Your task to perform on an android device: Open display settings Image 0: 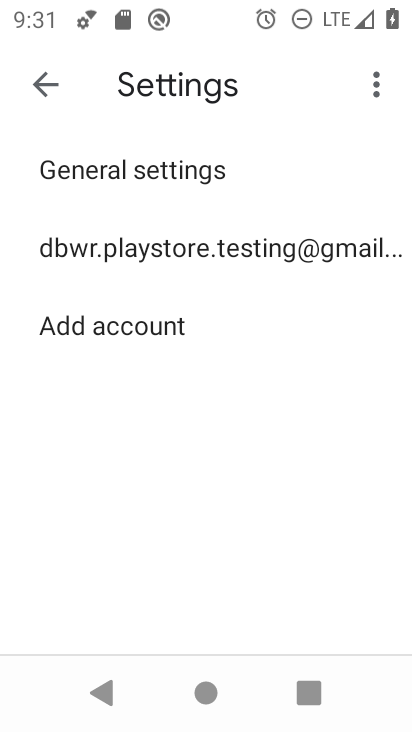
Step 0: press home button
Your task to perform on an android device: Open display settings Image 1: 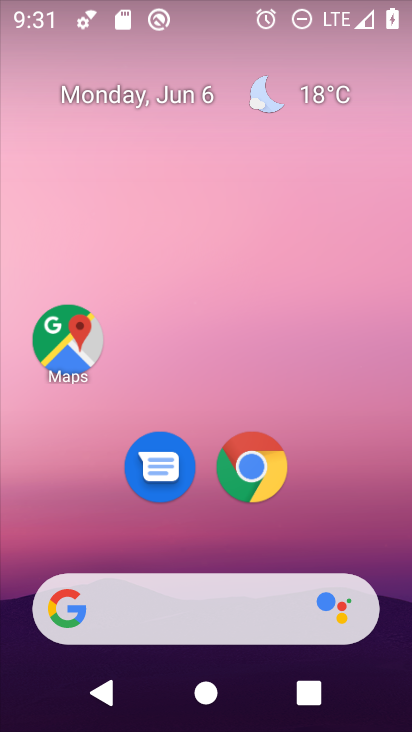
Step 1: drag from (351, 525) to (375, 119)
Your task to perform on an android device: Open display settings Image 2: 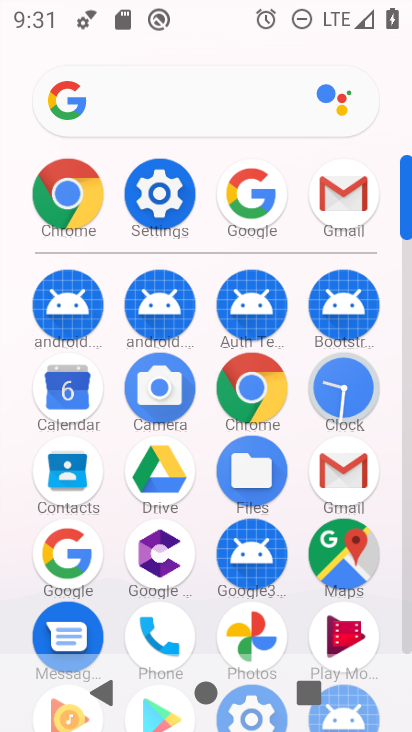
Step 2: click (170, 196)
Your task to perform on an android device: Open display settings Image 3: 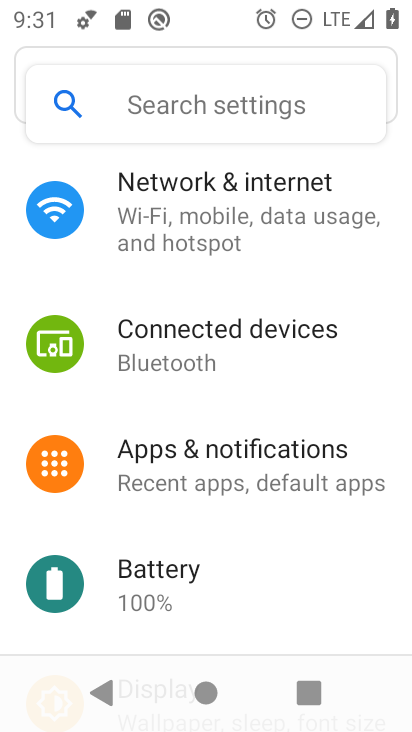
Step 3: drag from (364, 281) to (363, 488)
Your task to perform on an android device: Open display settings Image 4: 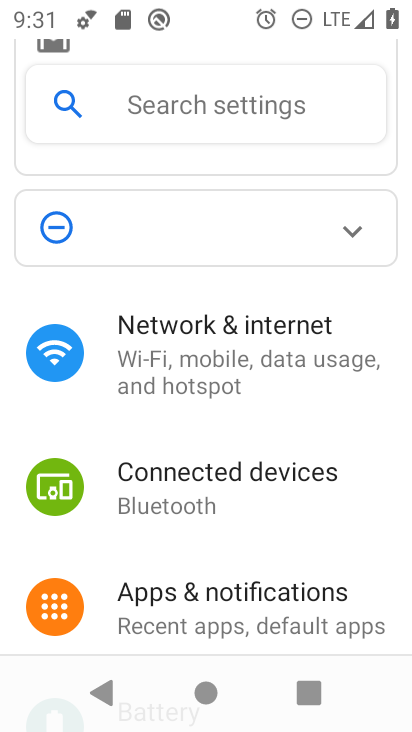
Step 4: drag from (365, 526) to (372, 406)
Your task to perform on an android device: Open display settings Image 5: 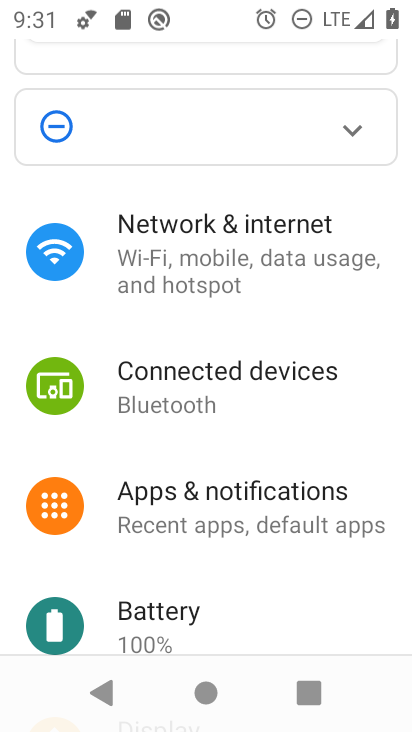
Step 5: drag from (352, 576) to (359, 378)
Your task to perform on an android device: Open display settings Image 6: 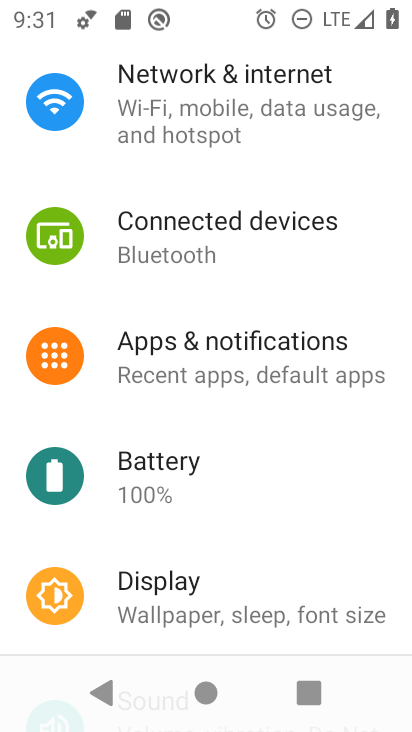
Step 6: drag from (347, 527) to (358, 302)
Your task to perform on an android device: Open display settings Image 7: 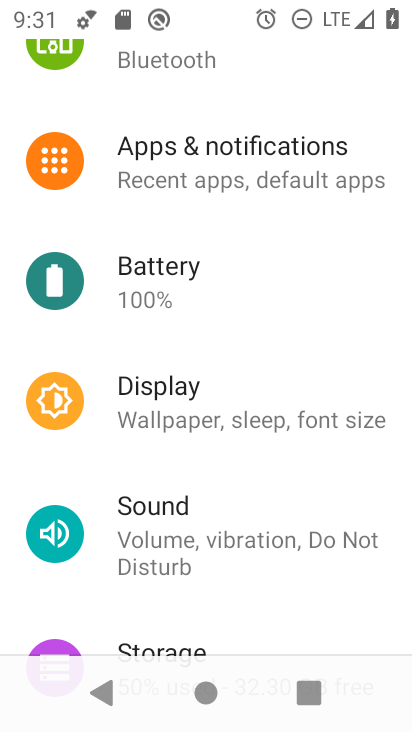
Step 7: drag from (361, 489) to (358, 241)
Your task to perform on an android device: Open display settings Image 8: 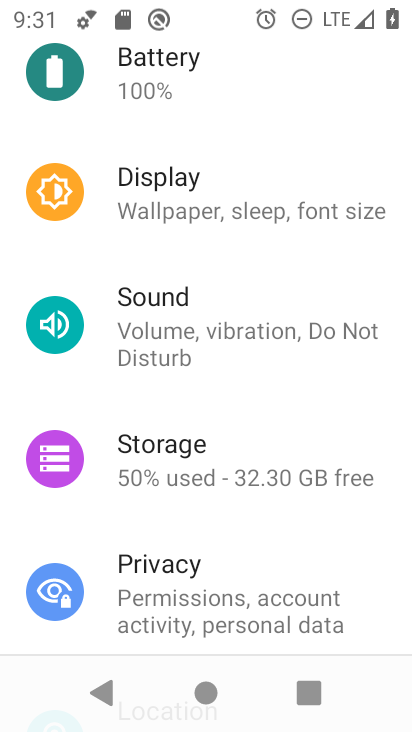
Step 8: click (306, 209)
Your task to perform on an android device: Open display settings Image 9: 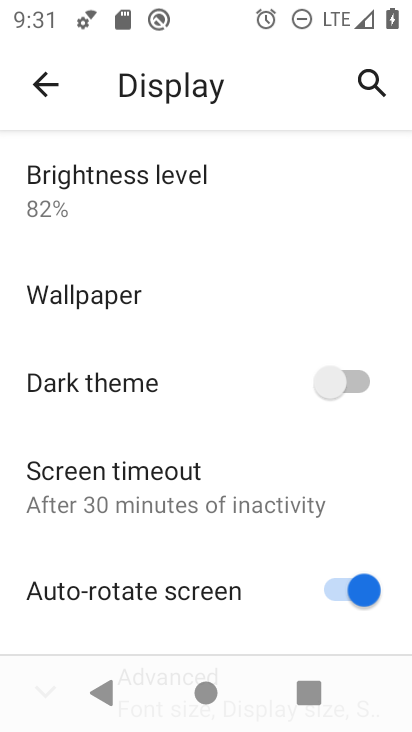
Step 9: task complete